Your task to perform on an android device: uninstall "Microsoft Authenticator" Image 0: 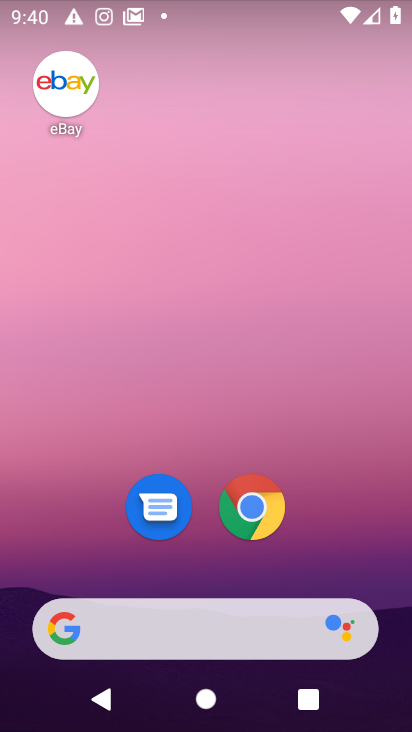
Step 0: drag from (233, 570) to (208, 8)
Your task to perform on an android device: uninstall "Microsoft Authenticator" Image 1: 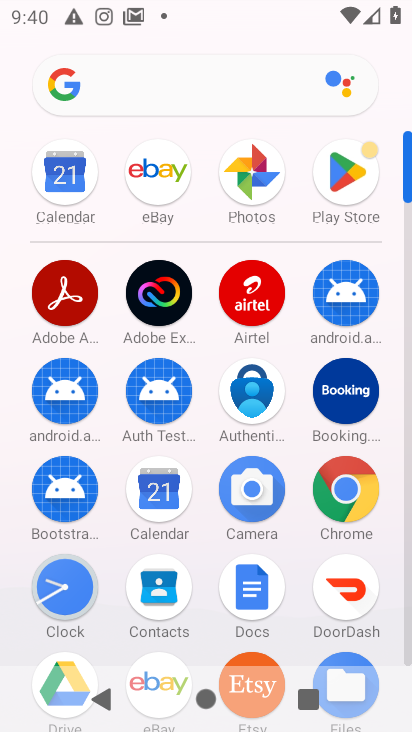
Step 1: click (347, 164)
Your task to perform on an android device: uninstall "Microsoft Authenticator" Image 2: 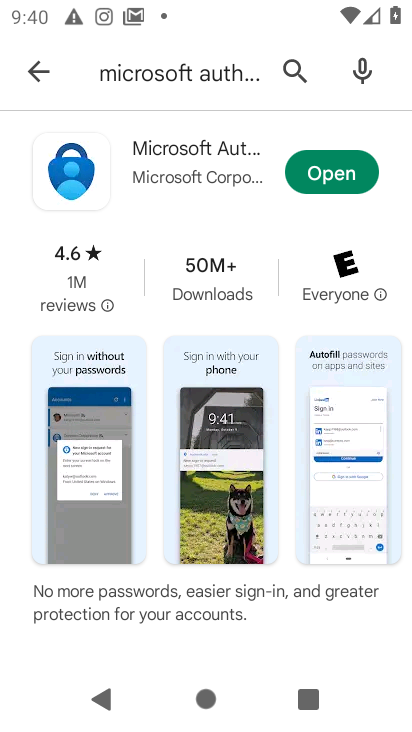
Step 2: click (168, 160)
Your task to perform on an android device: uninstall "Microsoft Authenticator" Image 3: 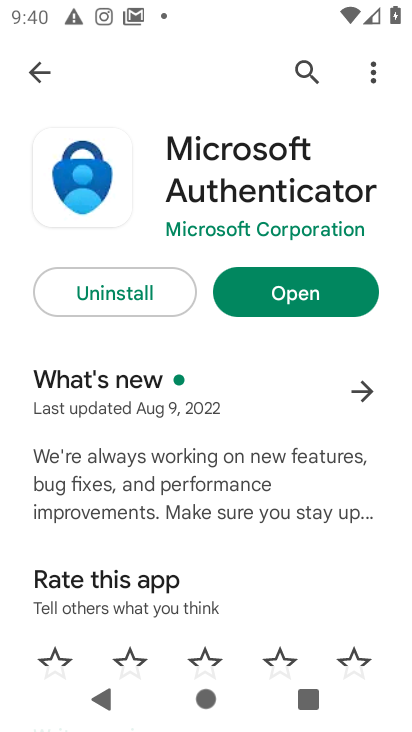
Step 3: click (108, 296)
Your task to perform on an android device: uninstall "Microsoft Authenticator" Image 4: 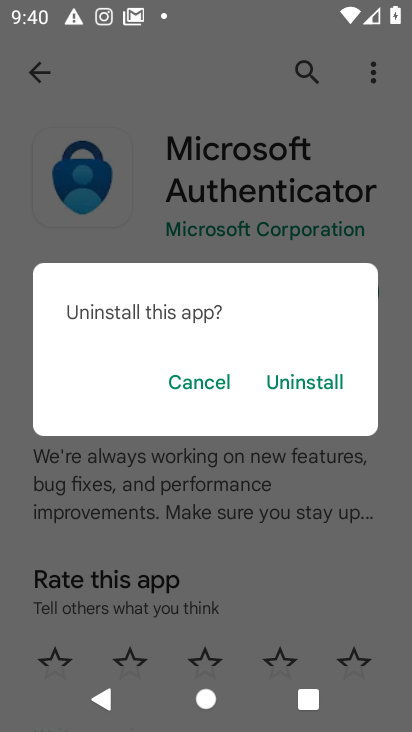
Step 4: click (308, 386)
Your task to perform on an android device: uninstall "Microsoft Authenticator" Image 5: 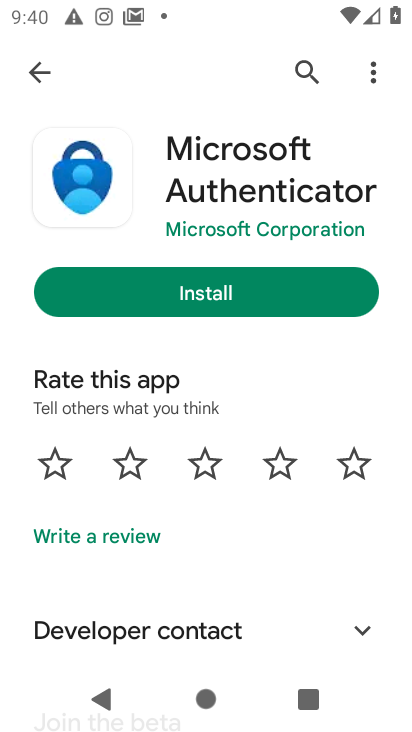
Step 5: task complete